Your task to perform on an android device: Open the map Image 0: 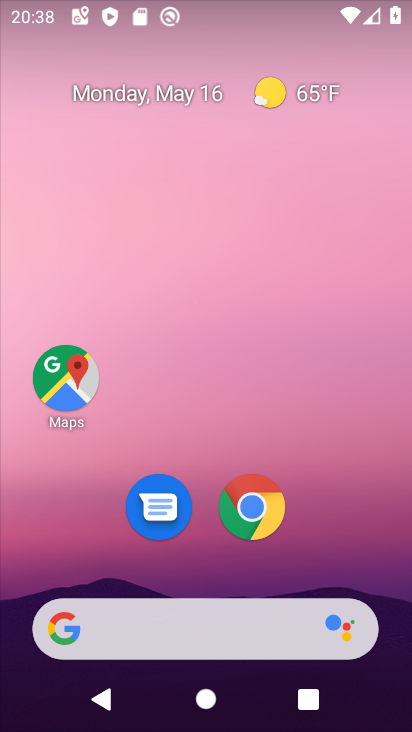
Step 0: click (80, 384)
Your task to perform on an android device: Open the map Image 1: 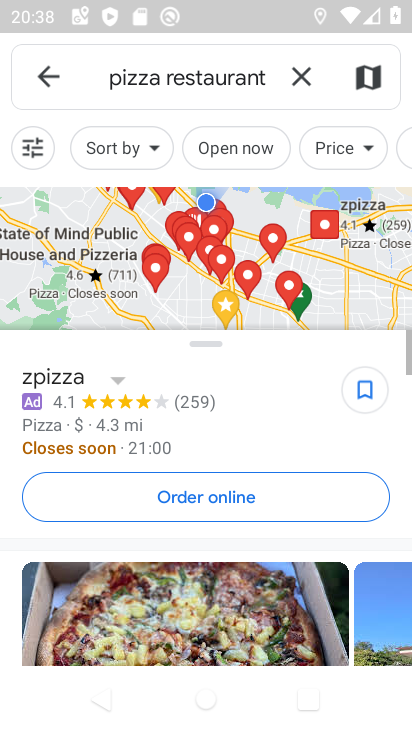
Step 1: click (28, 86)
Your task to perform on an android device: Open the map Image 2: 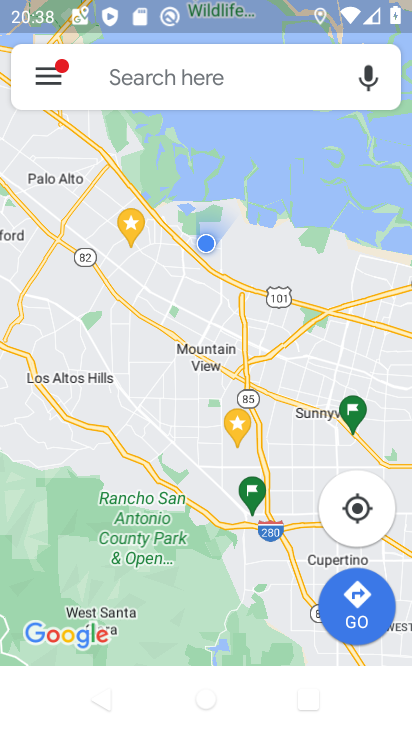
Step 2: task complete